Your task to perform on an android device: show emergency info Image 0: 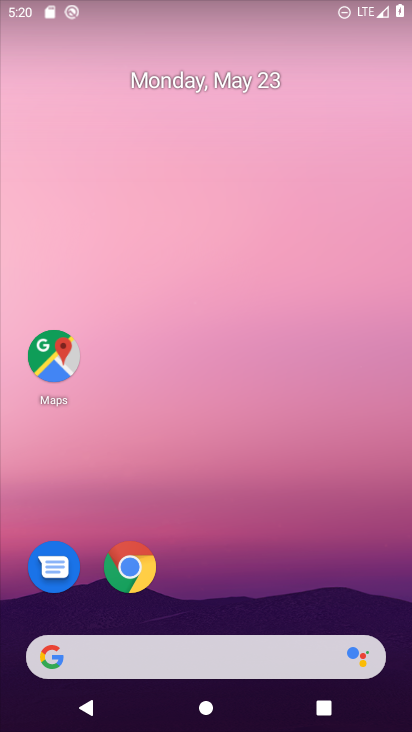
Step 0: drag from (266, 596) to (247, 159)
Your task to perform on an android device: show emergency info Image 1: 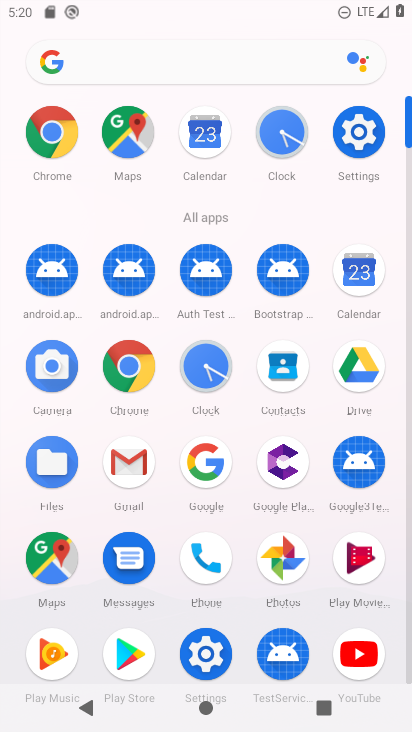
Step 1: click (358, 132)
Your task to perform on an android device: show emergency info Image 2: 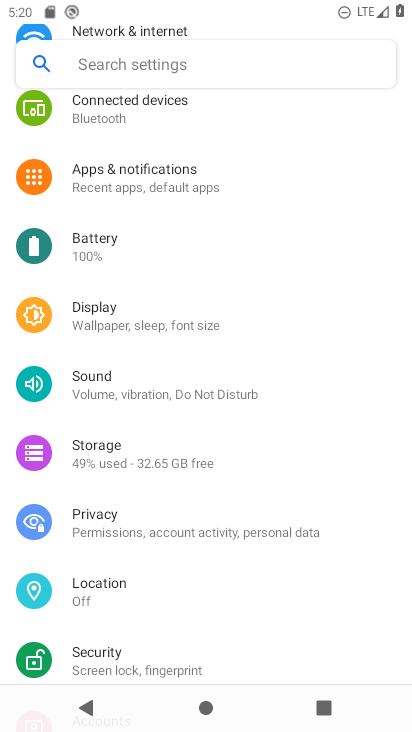
Step 2: drag from (207, 588) to (289, 452)
Your task to perform on an android device: show emergency info Image 3: 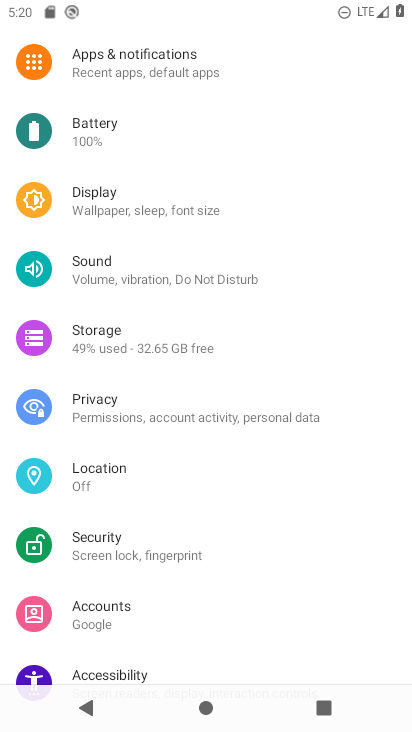
Step 3: drag from (151, 590) to (228, 498)
Your task to perform on an android device: show emergency info Image 4: 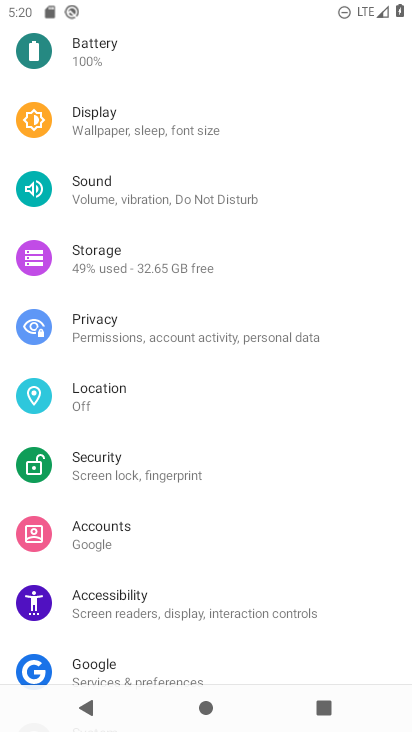
Step 4: drag from (168, 575) to (242, 490)
Your task to perform on an android device: show emergency info Image 5: 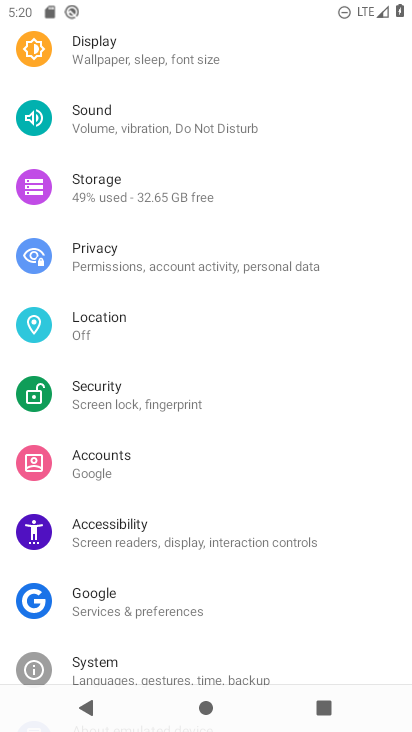
Step 5: drag from (184, 583) to (253, 493)
Your task to perform on an android device: show emergency info Image 6: 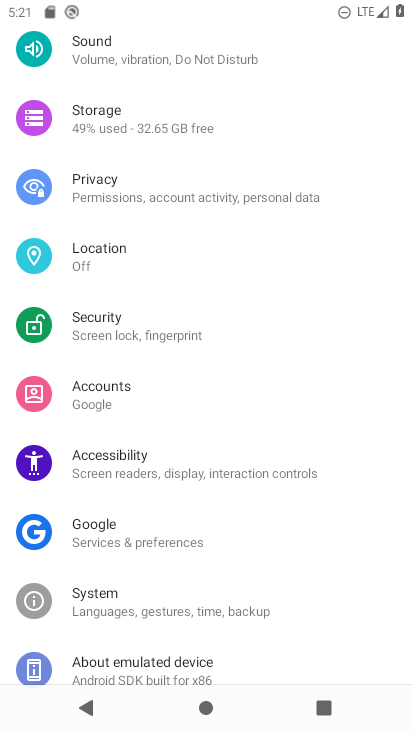
Step 6: drag from (139, 638) to (194, 532)
Your task to perform on an android device: show emergency info Image 7: 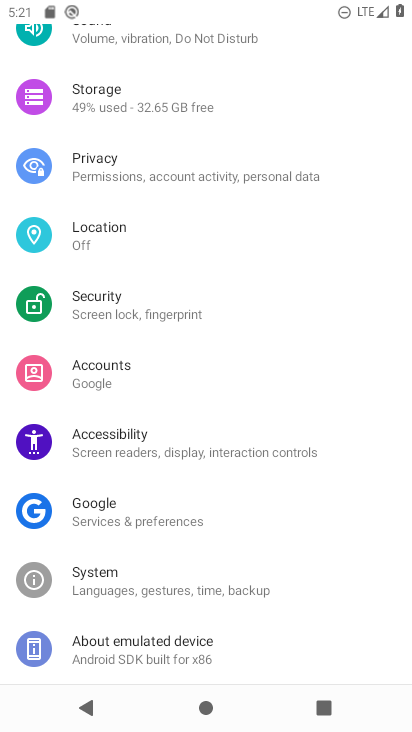
Step 7: click (138, 636)
Your task to perform on an android device: show emergency info Image 8: 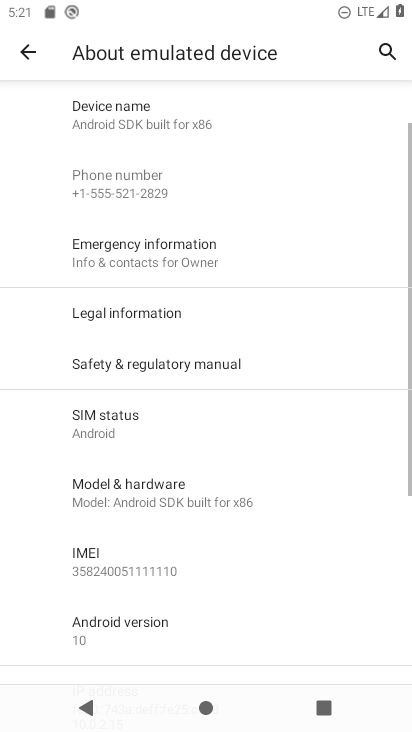
Step 8: click (158, 244)
Your task to perform on an android device: show emergency info Image 9: 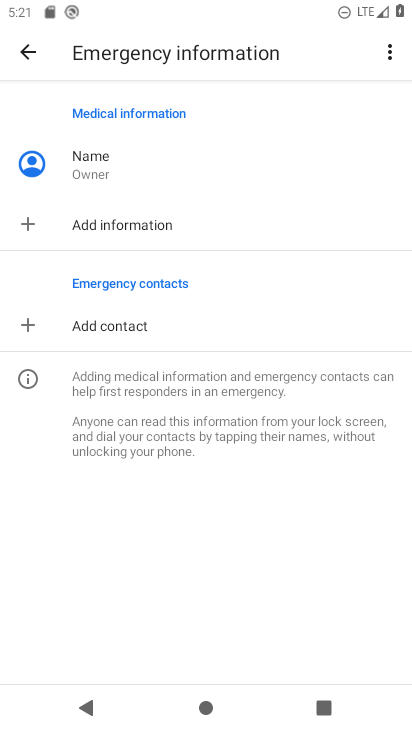
Step 9: task complete